Your task to perform on an android device: turn off data saver in the chrome app Image 0: 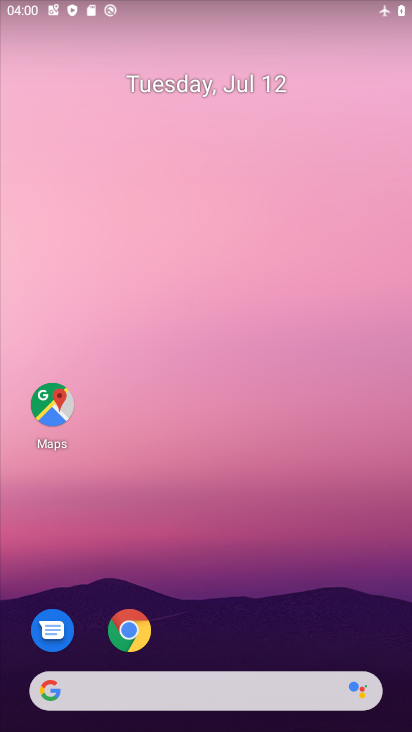
Step 0: drag from (321, 663) to (223, 1)
Your task to perform on an android device: turn off data saver in the chrome app Image 1: 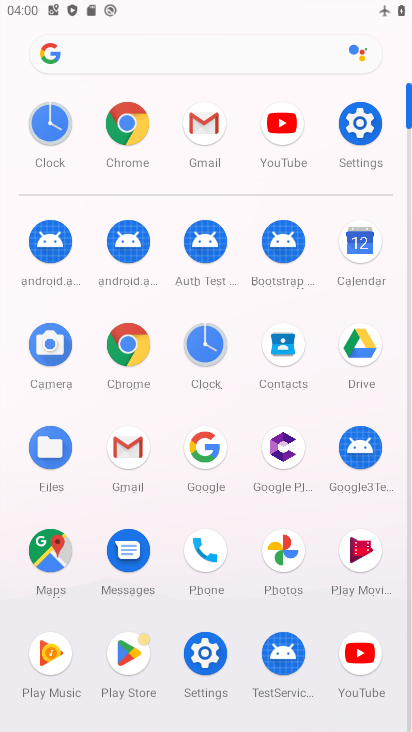
Step 1: click (130, 336)
Your task to perform on an android device: turn off data saver in the chrome app Image 2: 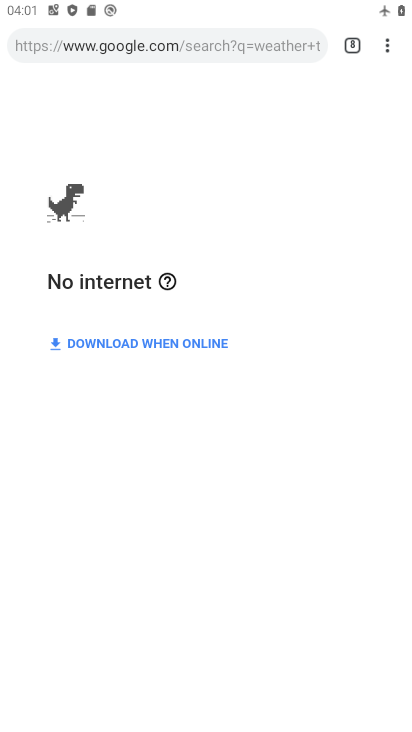
Step 2: click (262, 0)
Your task to perform on an android device: turn off data saver in the chrome app Image 3: 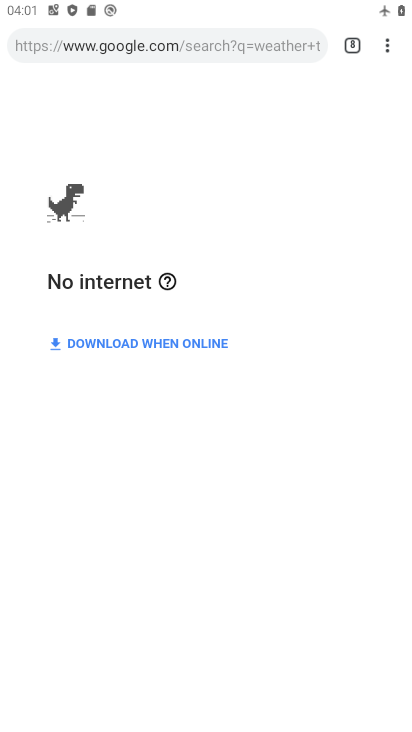
Step 3: click (387, 39)
Your task to perform on an android device: turn off data saver in the chrome app Image 4: 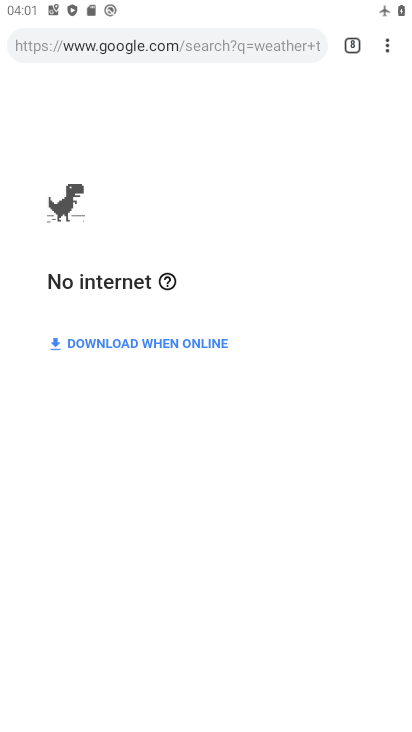
Step 4: drag from (384, 38) to (222, 513)
Your task to perform on an android device: turn off data saver in the chrome app Image 5: 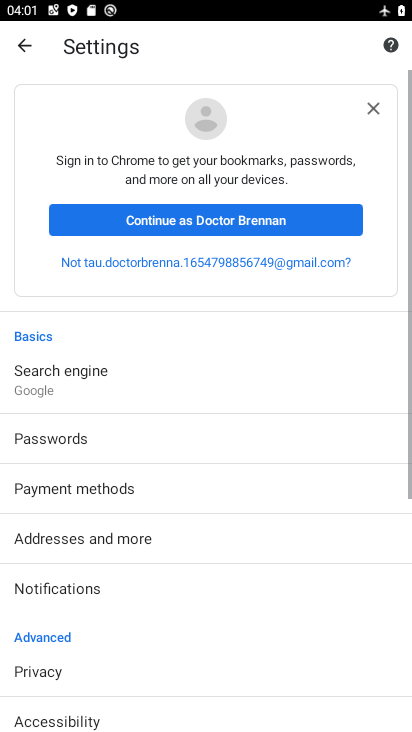
Step 5: drag from (181, 608) to (256, 136)
Your task to perform on an android device: turn off data saver in the chrome app Image 6: 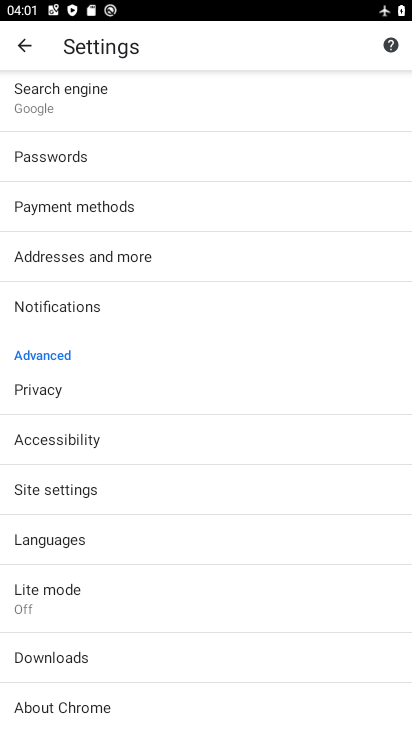
Step 6: click (79, 606)
Your task to perform on an android device: turn off data saver in the chrome app Image 7: 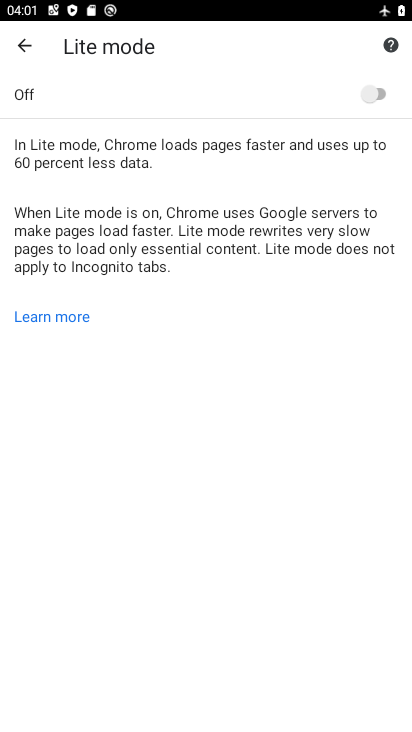
Step 7: task complete